Your task to perform on an android device: set the timer Image 0: 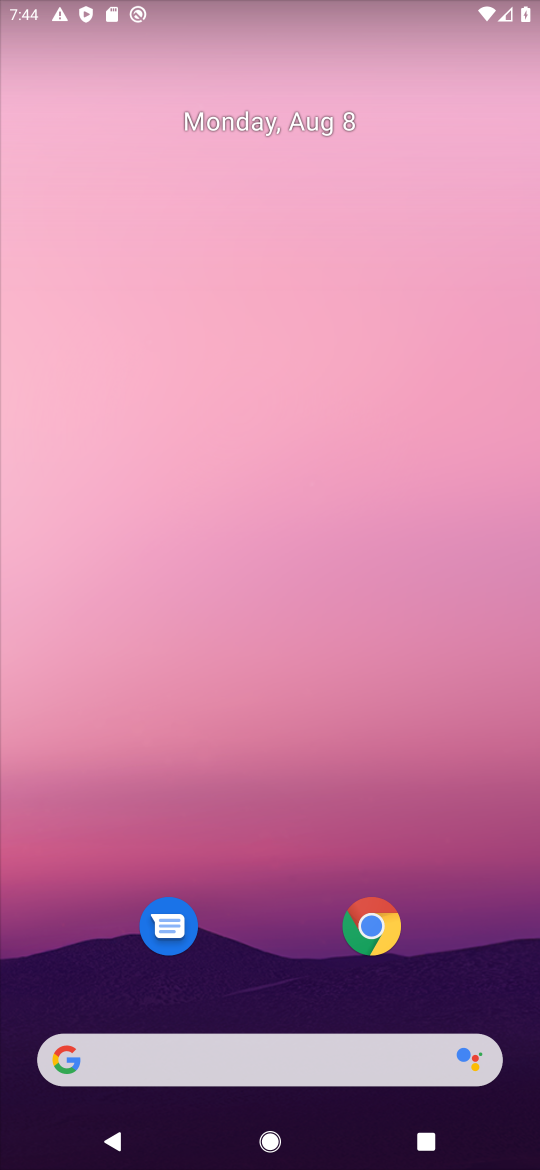
Step 0: drag from (273, 352) to (288, 293)
Your task to perform on an android device: set the timer Image 1: 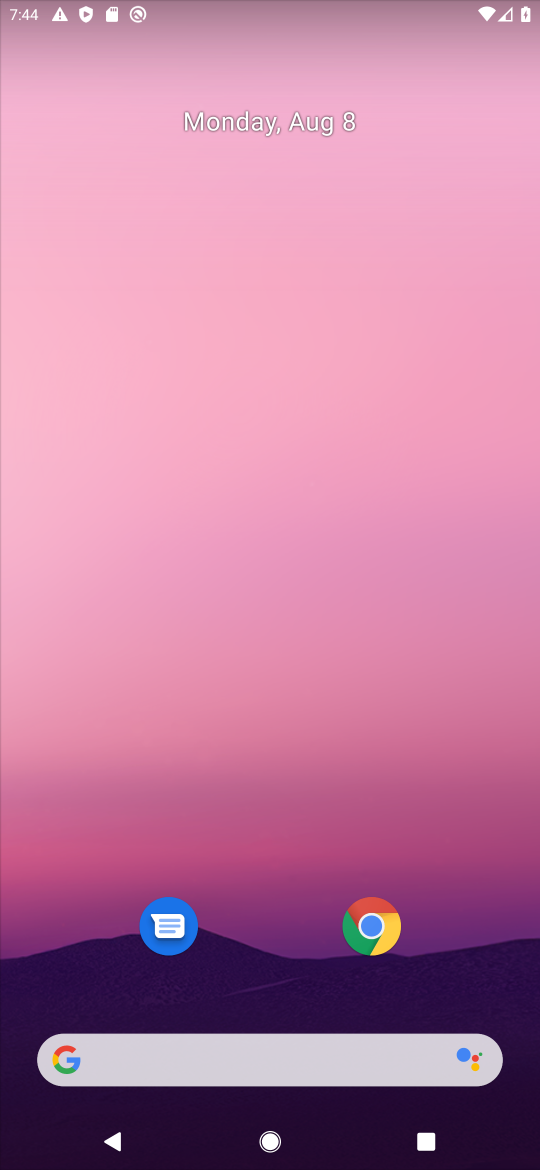
Step 1: drag from (297, 948) to (347, 1)
Your task to perform on an android device: set the timer Image 2: 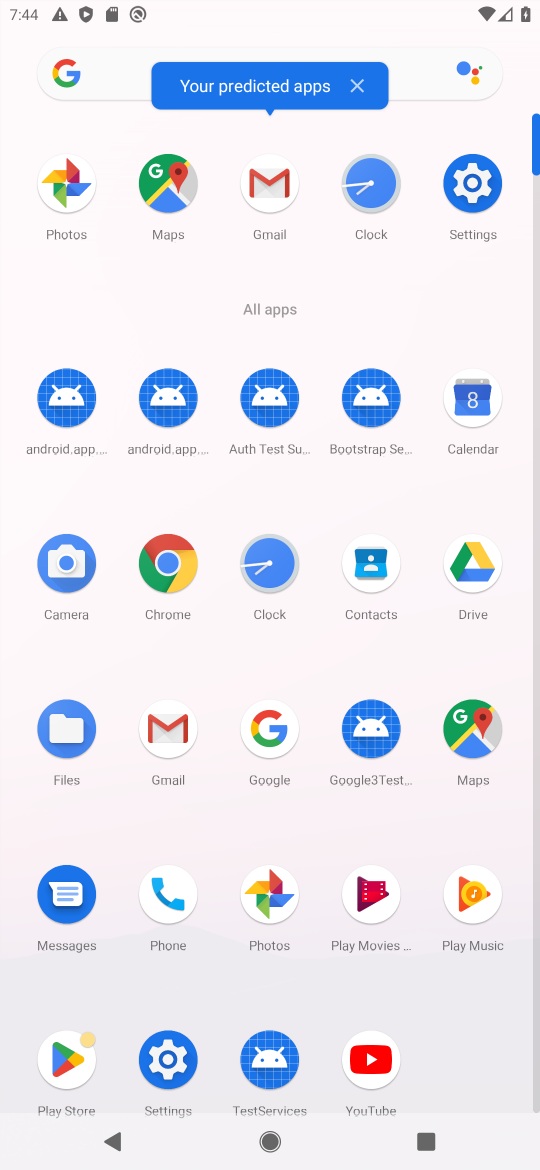
Step 2: click (362, 221)
Your task to perform on an android device: set the timer Image 3: 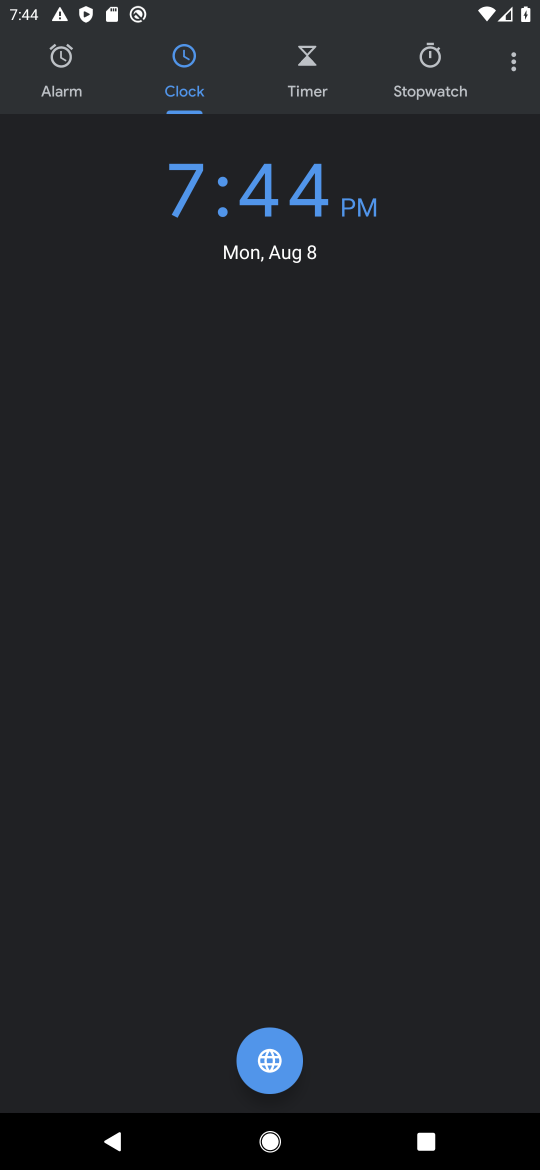
Step 3: click (313, 80)
Your task to perform on an android device: set the timer Image 4: 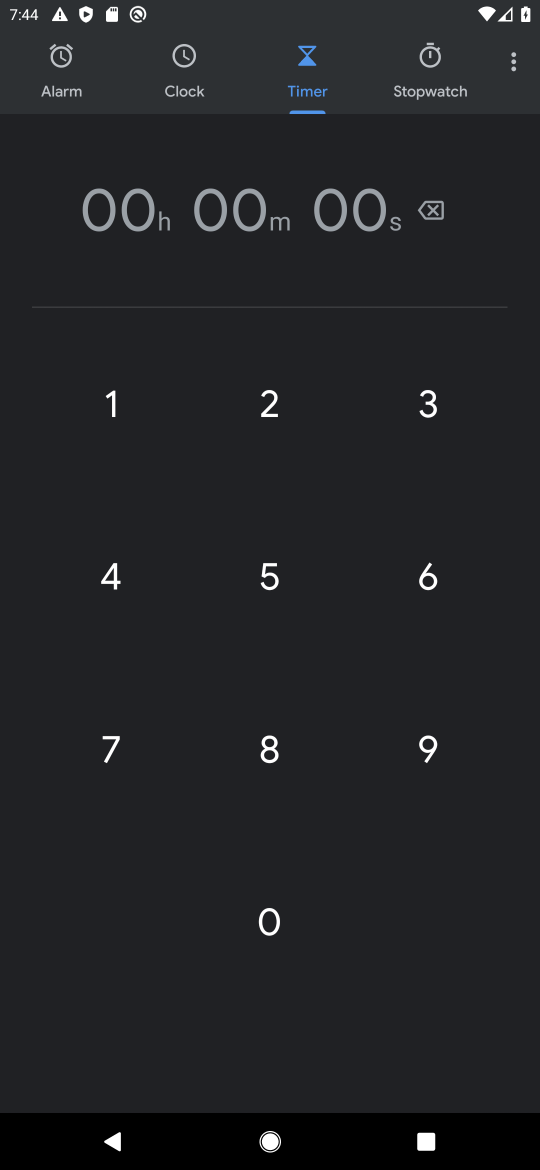
Step 4: click (273, 765)
Your task to perform on an android device: set the timer Image 5: 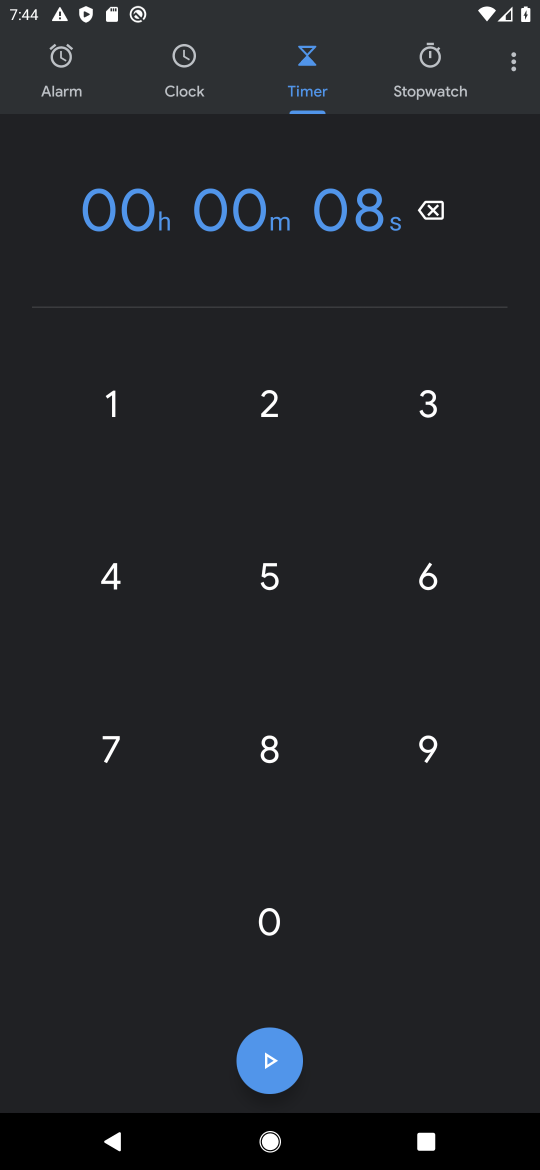
Step 5: click (125, 606)
Your task to perform on an android device: set the timer Image 6: 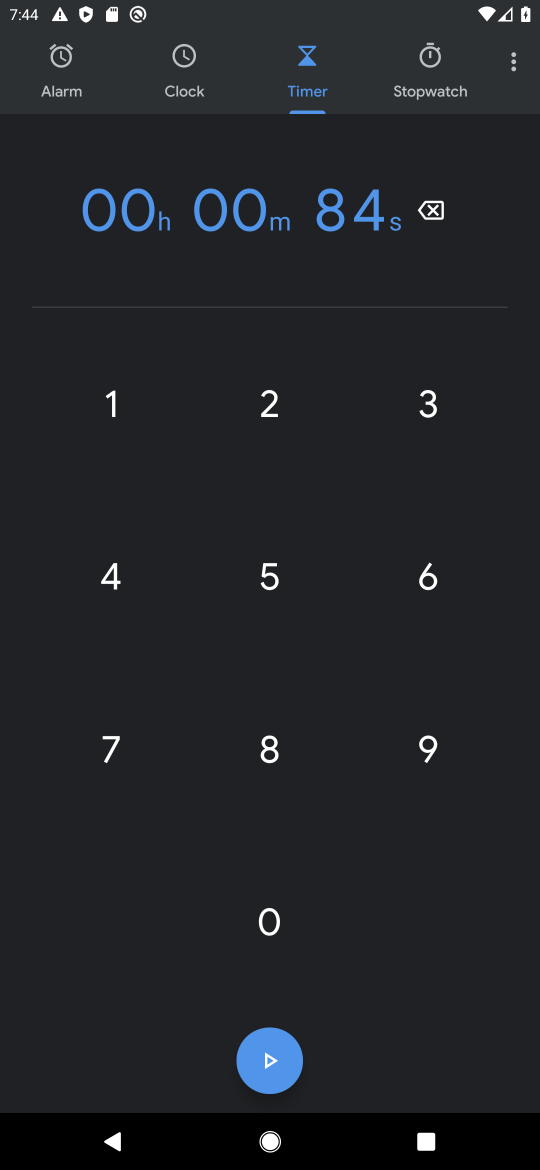
Step 6: click (452, 754)
Your task to perform on an android device: set the timer Image 7: 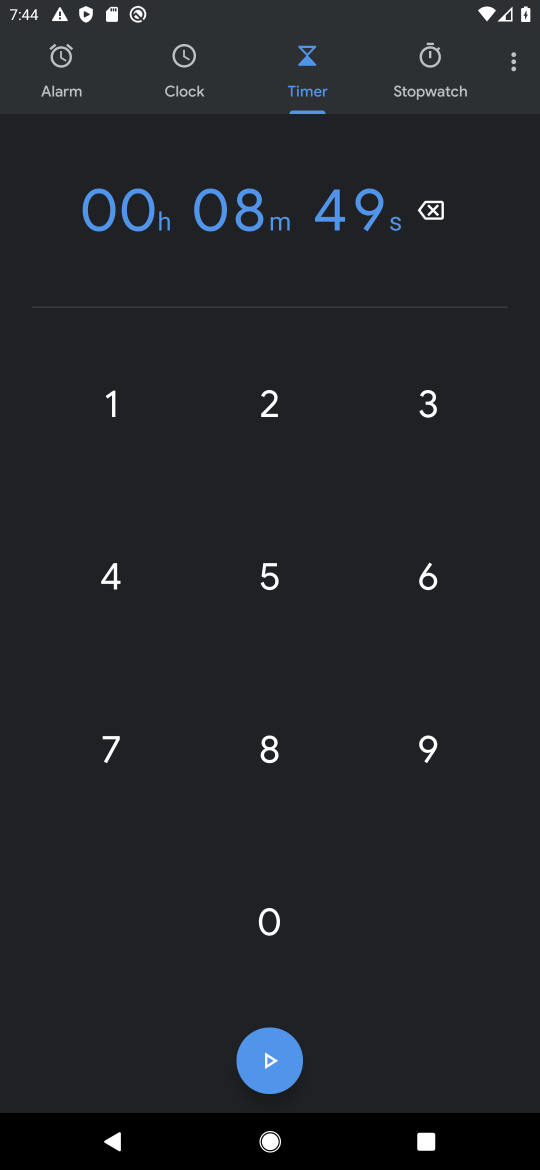
Step 7: click (276, 1050)
Your task to perform on an android device: set the timer Image 8: 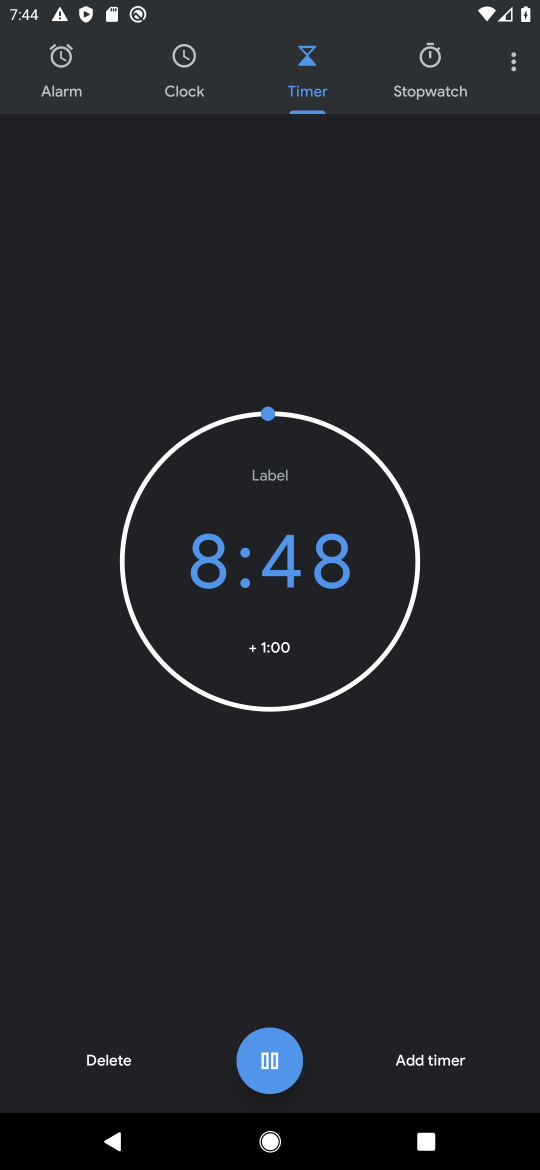
Step 8: task complete